Your task to perform on an android device: Search for vegetarian restaurants on Maps Image 0: 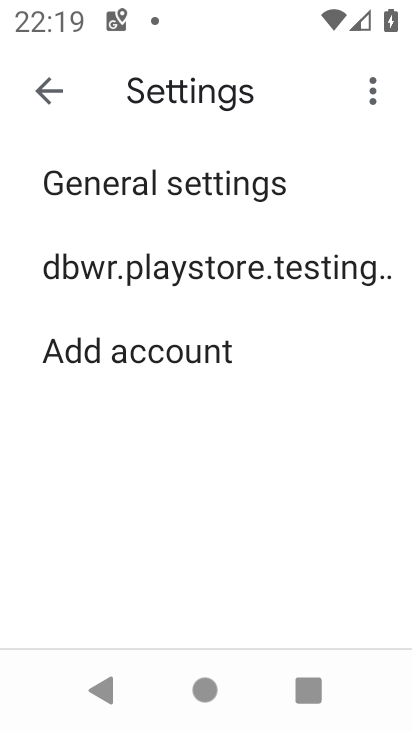
Step 0: press home button
Your task to perform on an android device: Search for vegetarian restaurants on Maps Image 1: 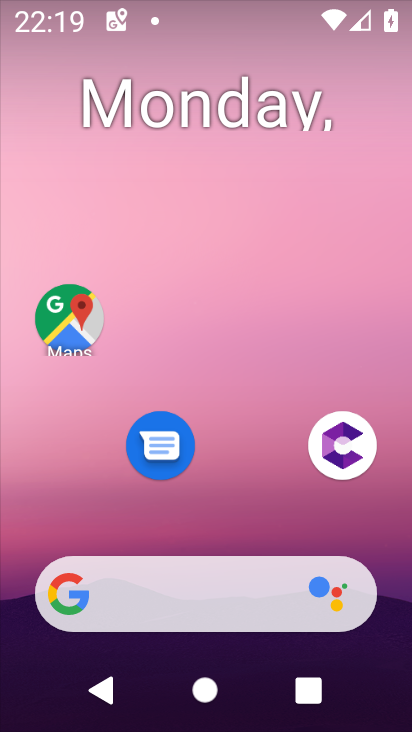
Step 1: click (48, 337)
Your task to perform on an android device: Search for vegetarian restaurants on Maps Image 2: 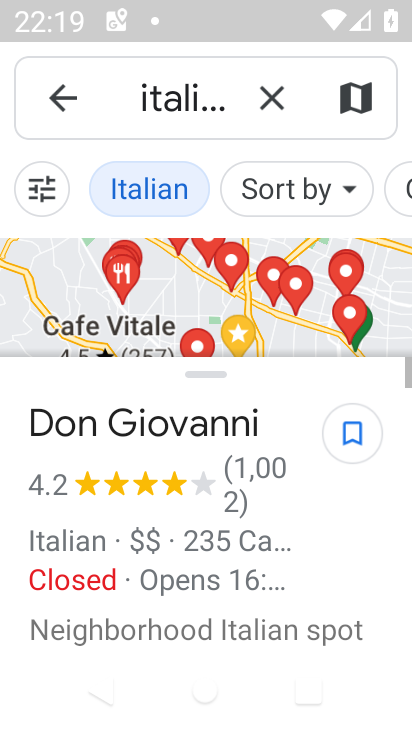
Step 2: click (268, 100)
Your task to perform on an android device: Search for vegetarian restaurants on Maps Image 3: 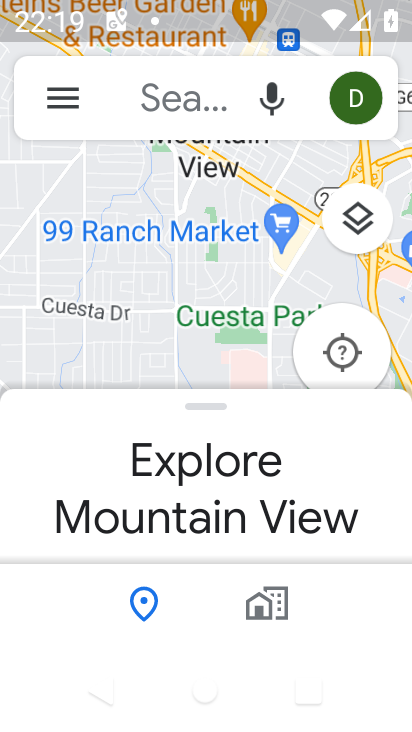
Step 3: click (183, 106)
Your task to perform on an android device: Search for vegetarian restaurants on Maps Image 4: 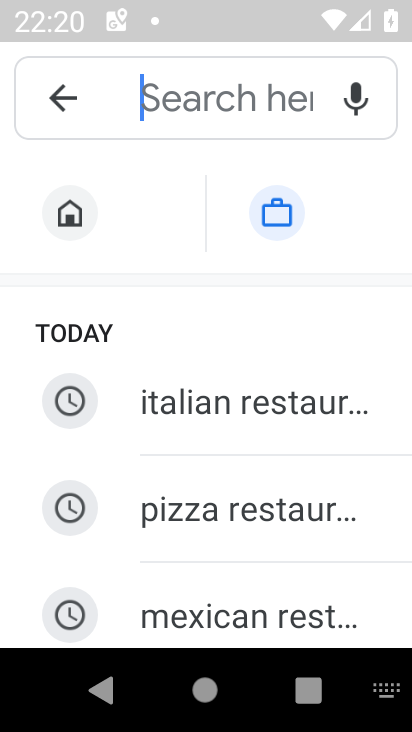
Step 4: type "vegetarian restaurants"
Your task to perform on an android device: Search for vegetarian restaurants on Maps Image 5: 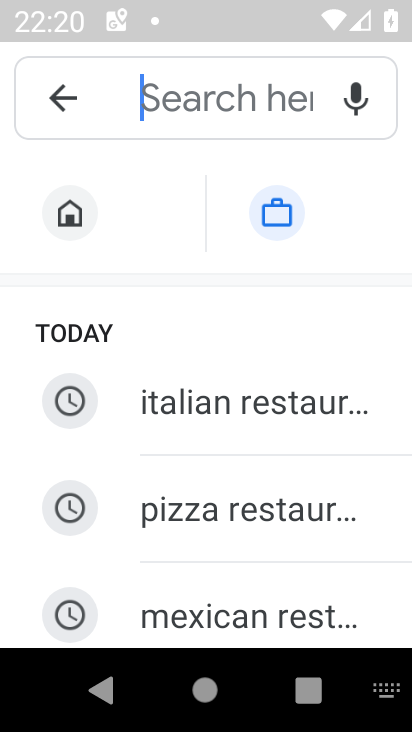
Step 5: click (232, 104)
Your task to perform on an android device: Search for vegetarian restaurants on Maps Image 6: 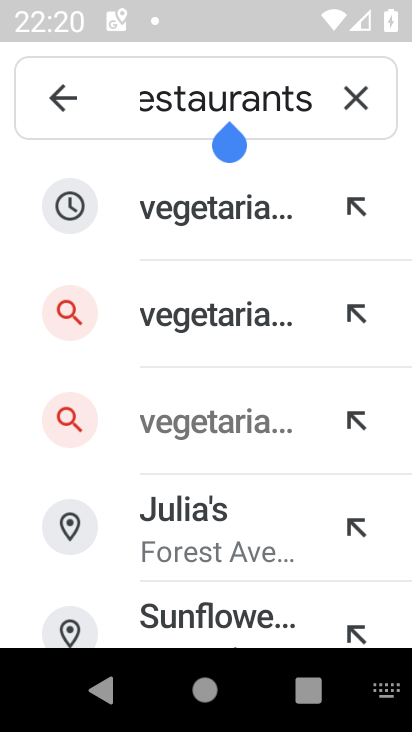
Step 6: click (223, 207)
Your task to perform on an android device: Search for vegetarian restaurants on Maps Image 7: 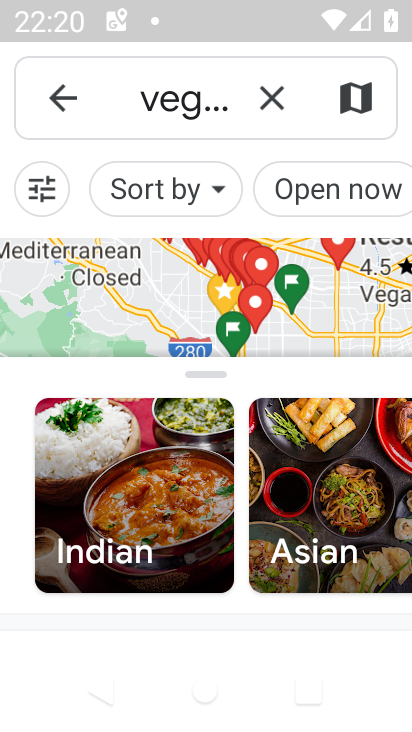
Step 7: task complete